Your task to perform on an android device: open app "NewsBreak: Local News & Alerts" (install if not already installed), go to login, and select forgot password Image 0: 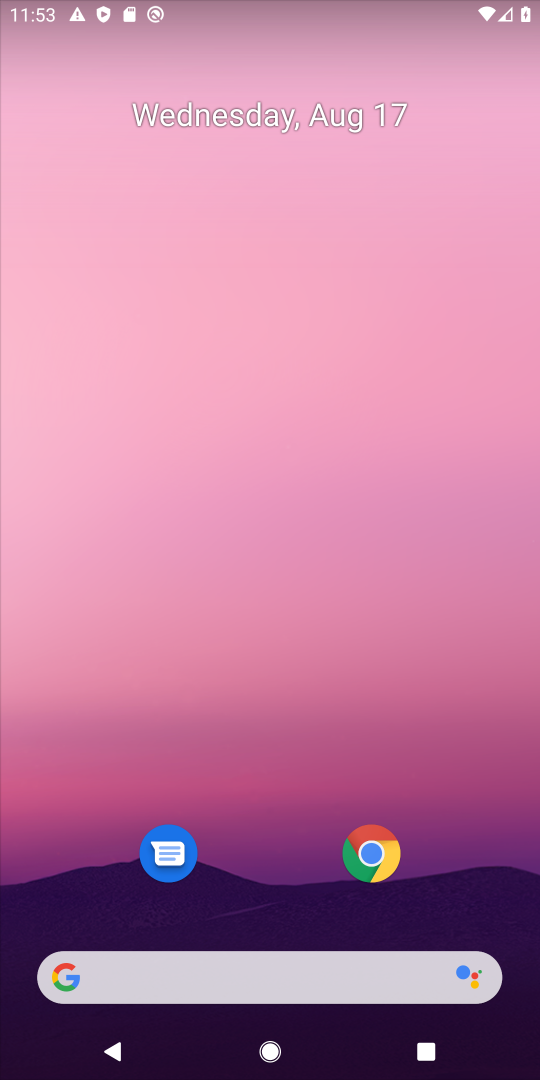
Step 0: drag from (266, 954) to (275, 127)
Your task to perform on an android device: open app "NewsBreak: Local News & Alerts" (install if not already installed), go to login, and select forgot password Image 1: 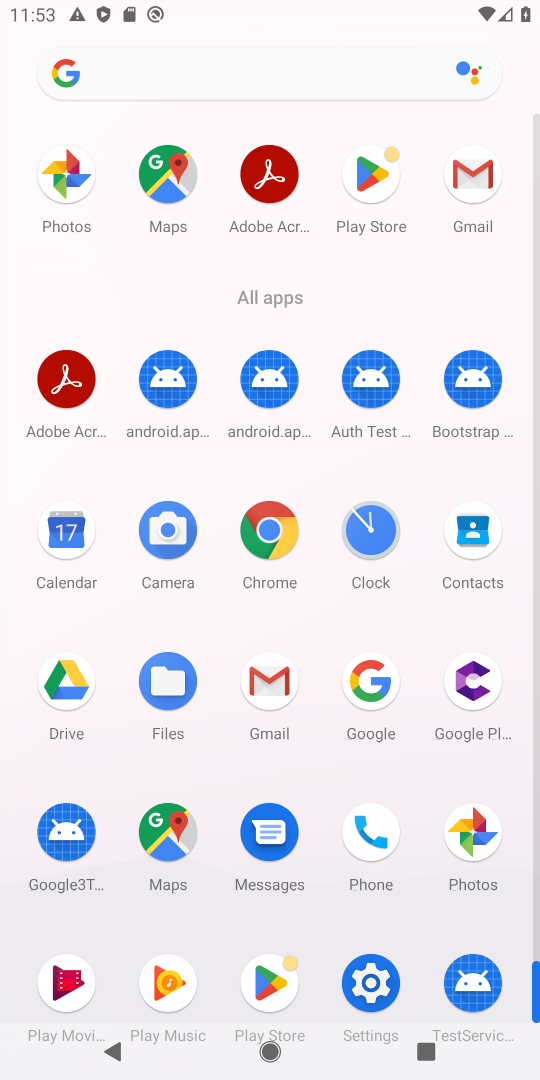
Step 1: click (249, 964)
Your task to perform on an android device: open app "NewsBreak: Local News & Alerts" (install if not already installed), go to login, and select forgot password Image 2: 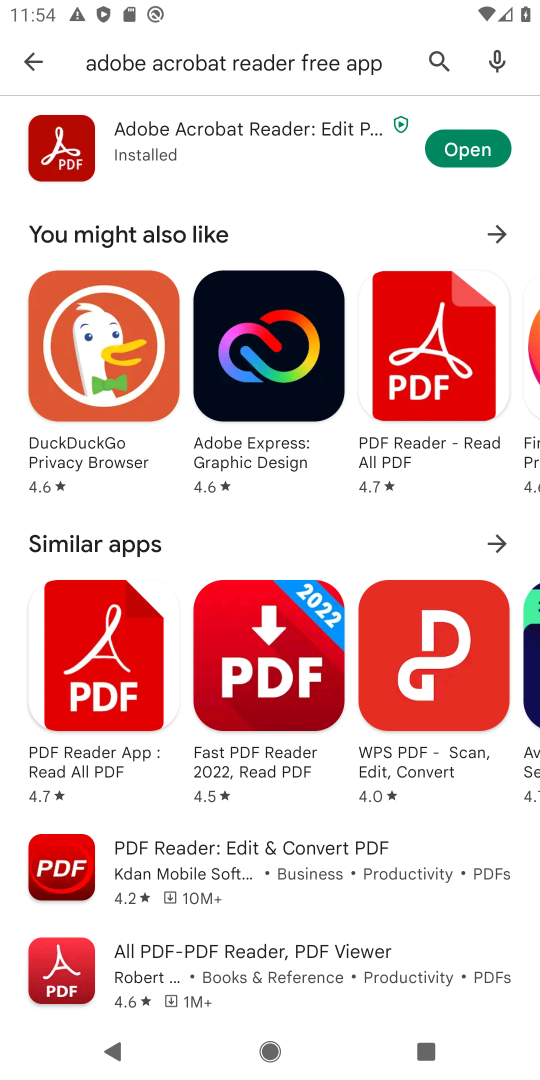
Step 2: click (32, 76)
Your task to perform on an android device: open app "NewsBreak: Local News & Alerts" (install if not already installed), go to login, and select forgot password Image 3: 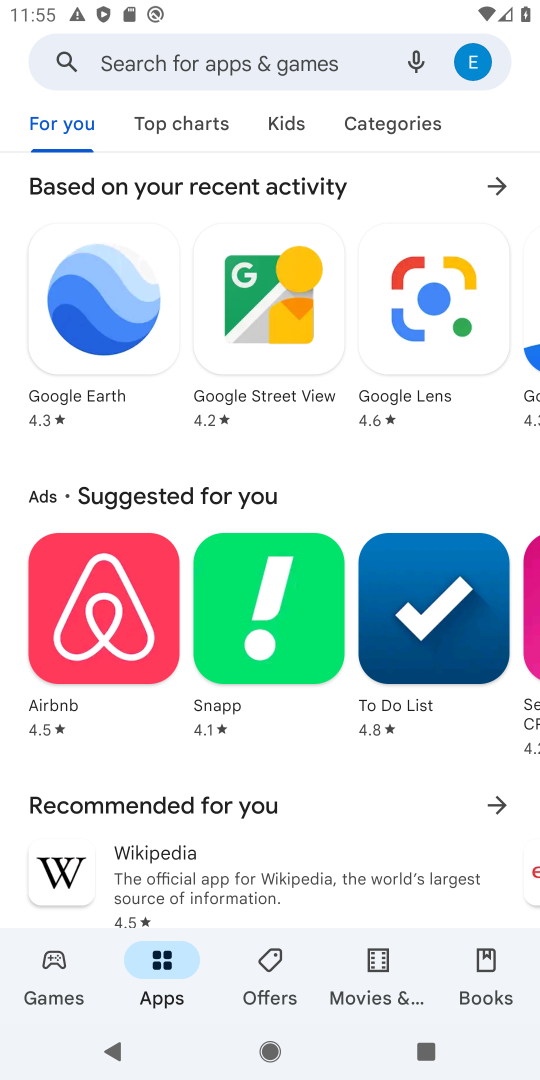
Step 3: click (142, 63)
Your task to perform on an android device: open app "NewsBreak: Local News & Alerts" (install if not already installed), go to login, and select forgot password Image 4: 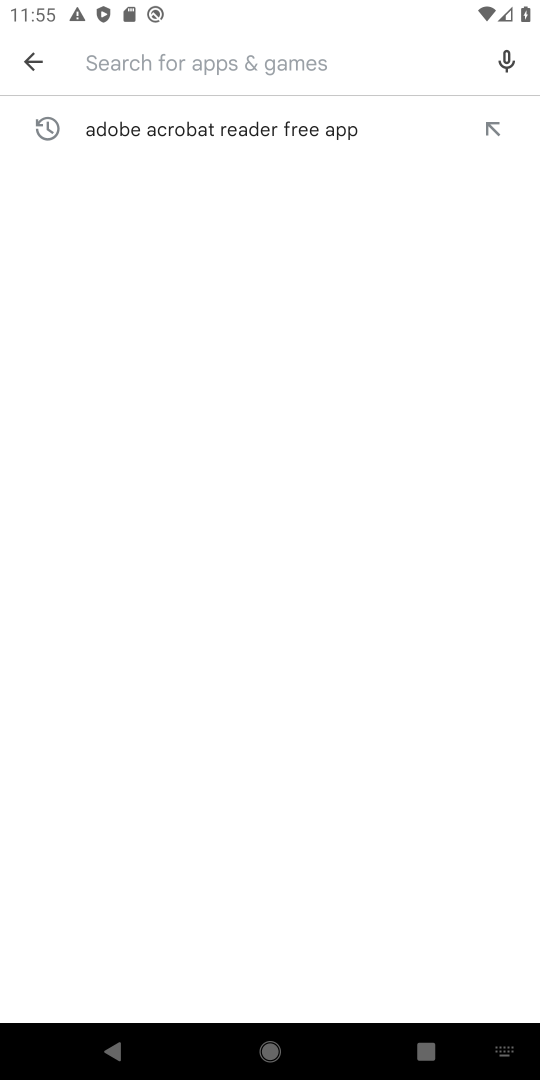
Step 4: type "NewsBreak: Local News & Alerts"
Your task to perform on an android device: open app "NewsBreak: Local News & Alerts" (install if not already installed), go to login, and select forgot password Image 5: 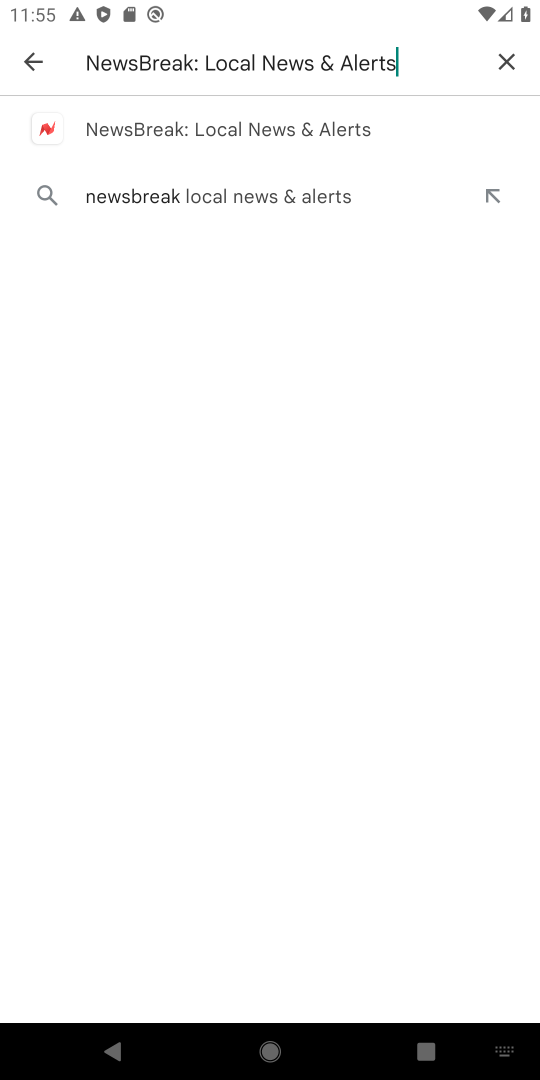
Step 5: click (351, 118)
Your task to perform on an android device: open app "NewsBreak: Local News & Alerts" (install if not already installed), go to login, and select forgot password Image 6: 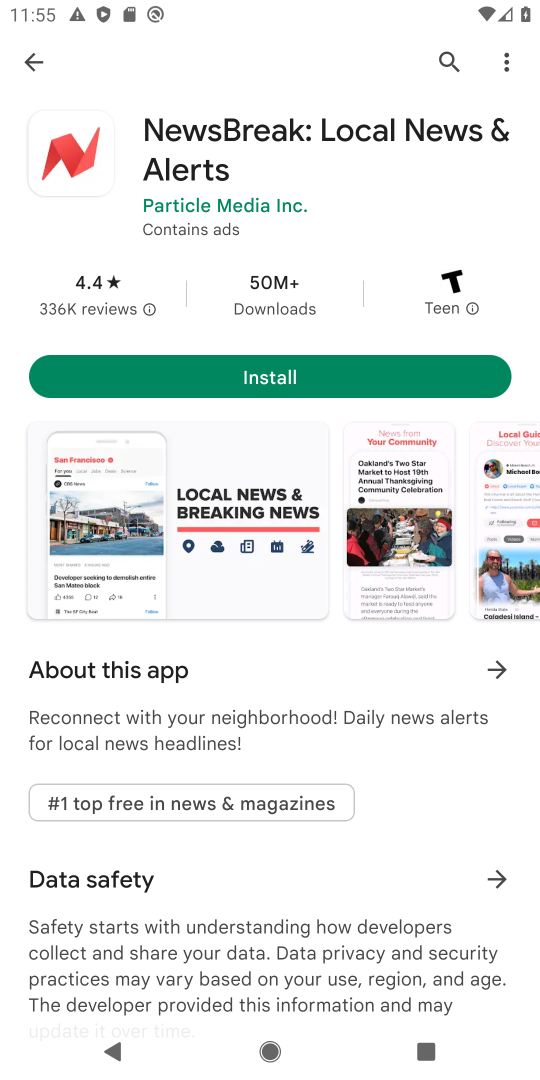
Step 6: click (321, 376)
Your task to perform on an android device: open app "NewsBreak: Local News & Alerts" (install if not already installed), go to login, and select forgot password Image 7: 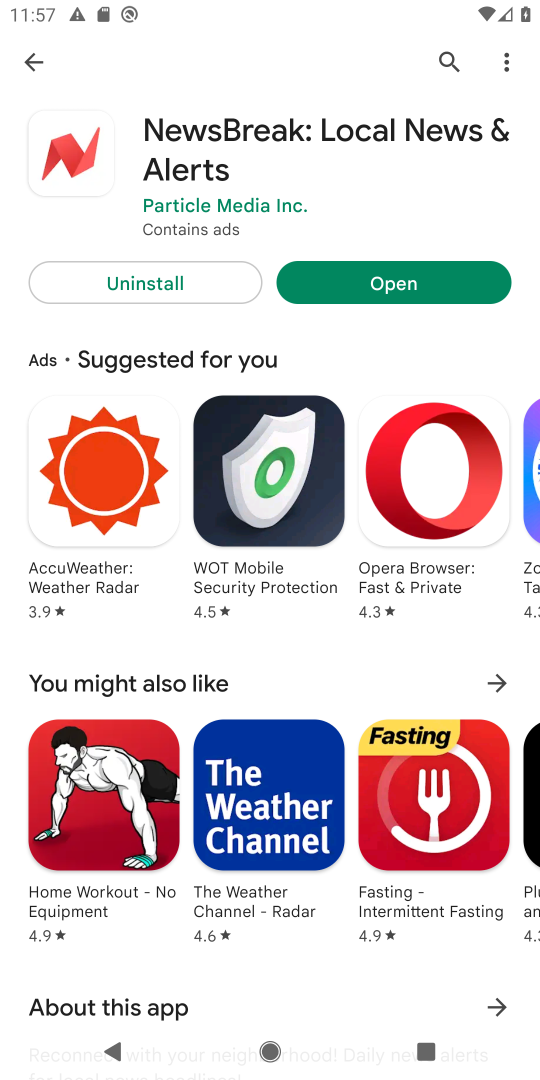
Step 7: click (410, 300)
Your task to perform on an android device: open app "NewsBreak: Local News & Alerts" (install if not already installed), go to login, and select forgot password Image 8: 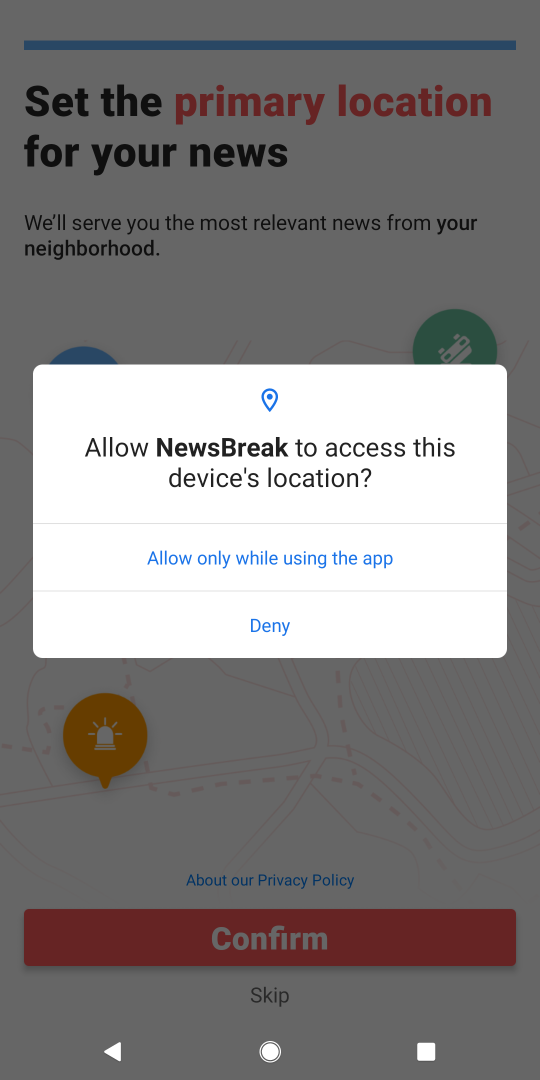
Step 8: task complete